Your task to perform on an android device: Go to ESPN.com Image 0: 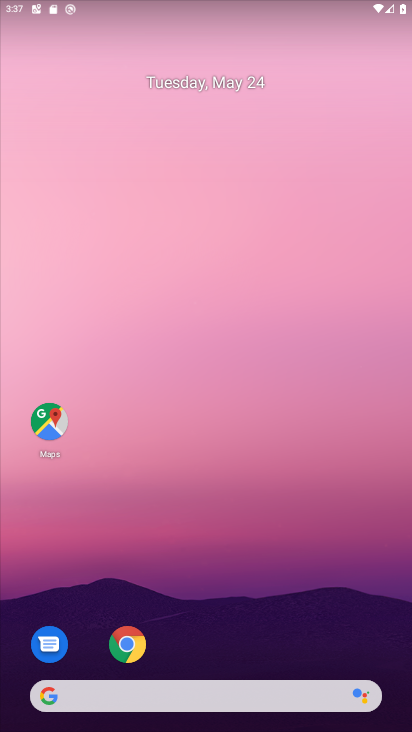
Step 0: click (135, 647)
Your task to perform on an android device: Go to ESPN.com Image 1: 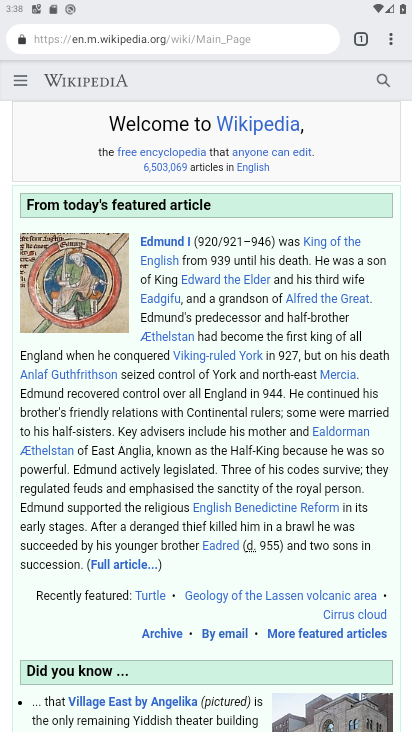
Step 1: click (191, 41)
Your task to perform on an android device: Go to ESPN.com Image 2: 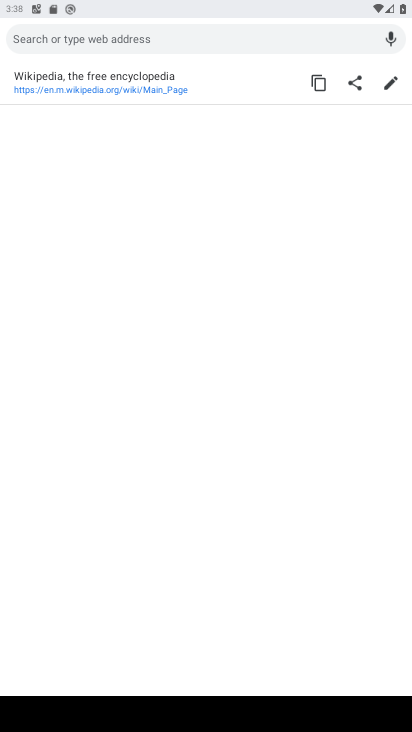
Step 2: type "espn.com"
Your task to perform on an android device: Go to ESPN.com Image 3: 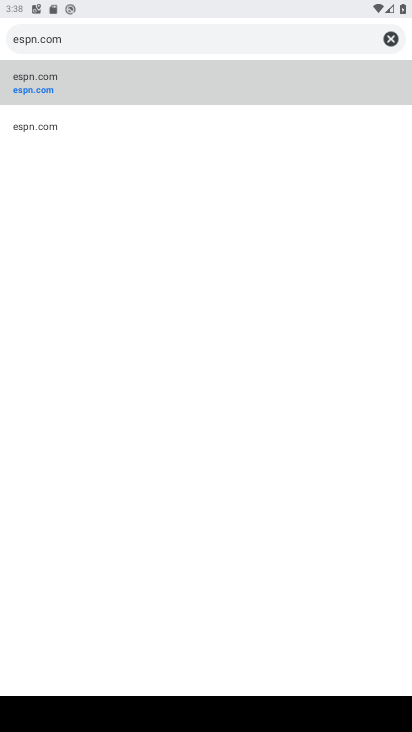
Step 3: click (40, 69)
Your task to perform on an android device: Go to ESPN.com Image 4: 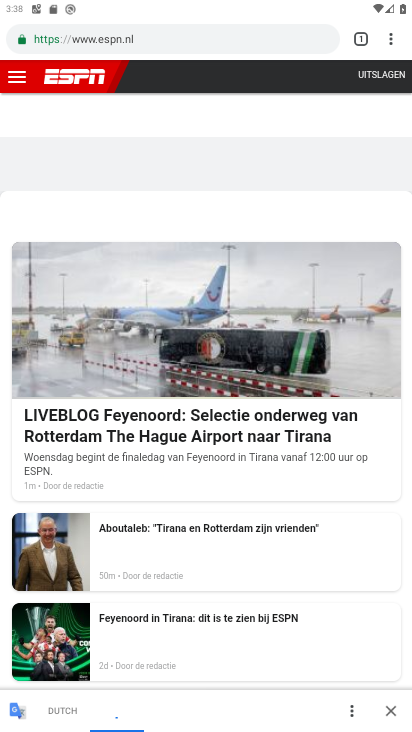
Step 4: task complete